Your task to perform on an android device: show emergency info Image 0: 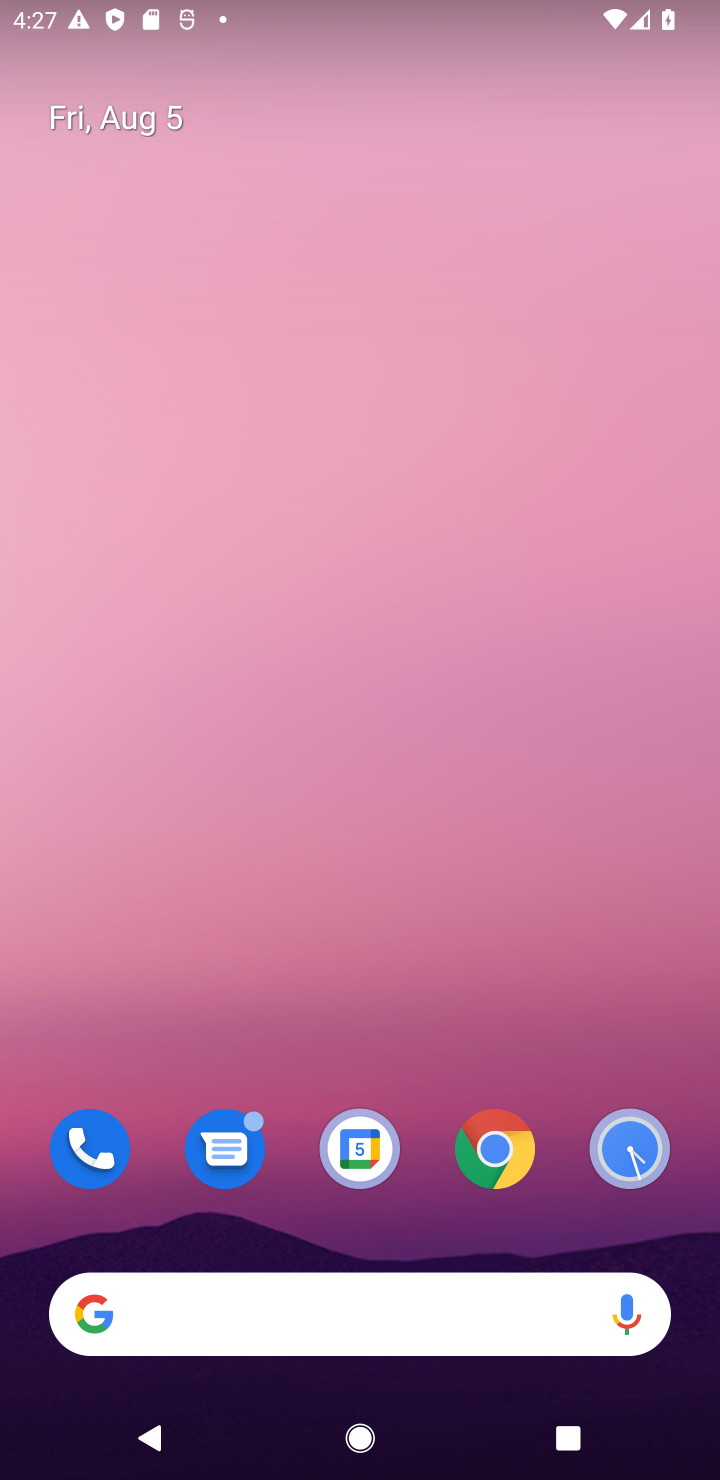
Step 0: drag from (275, 1200) to (480, 334)
Your task to perform on an android device: show emergency info Image 1: 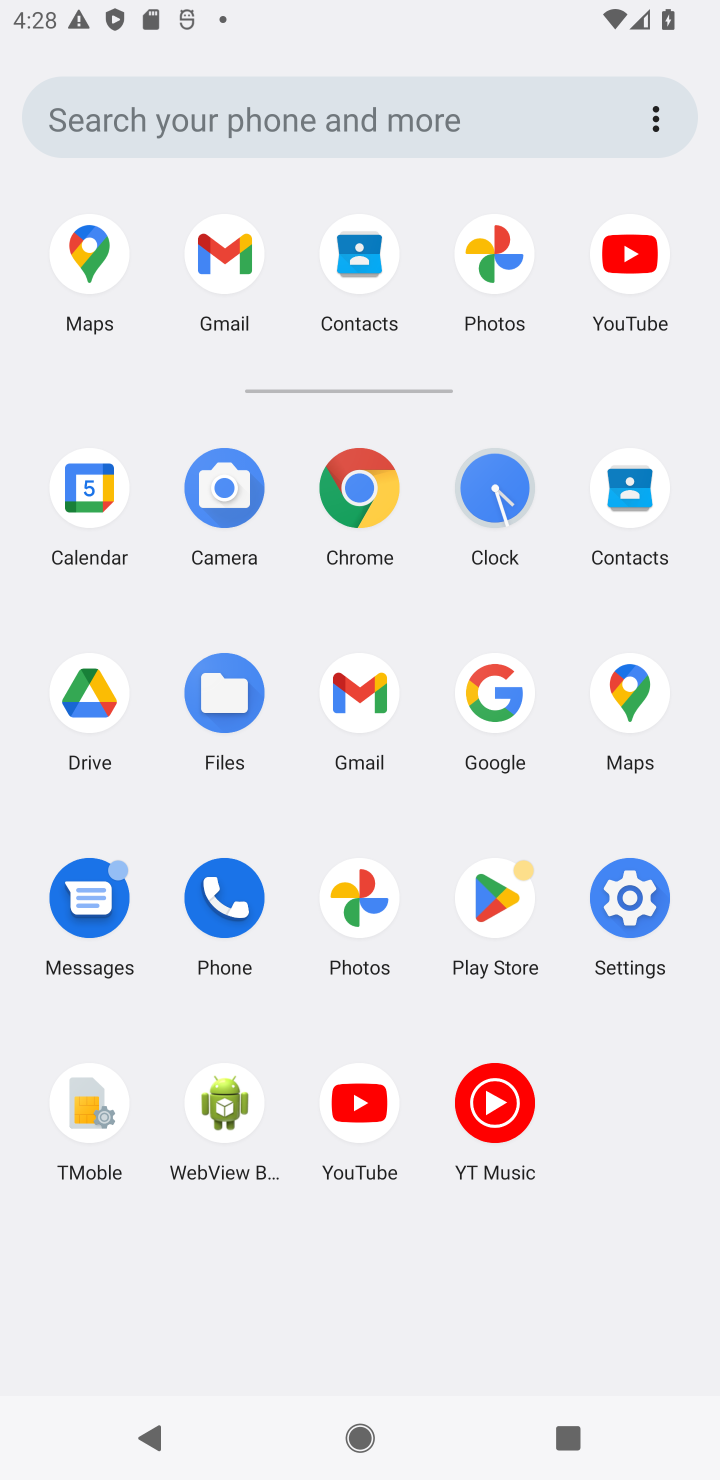
Step 1: click (648, 920)
Your task to perform on an android device: show emergency info Image 2: 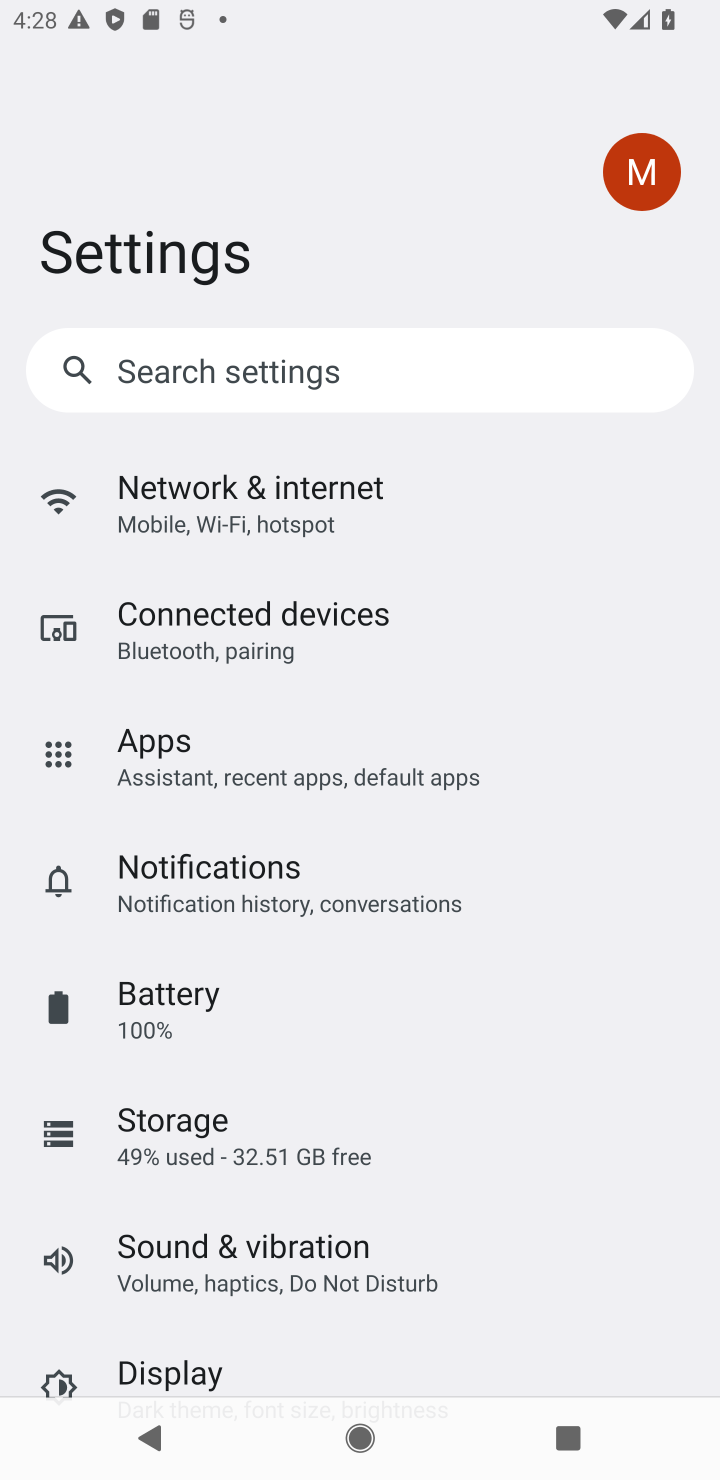
Step 2: drag from (318, 1297) to (373, 15)
Your task to perform on an android device: show emergency info Image 3: 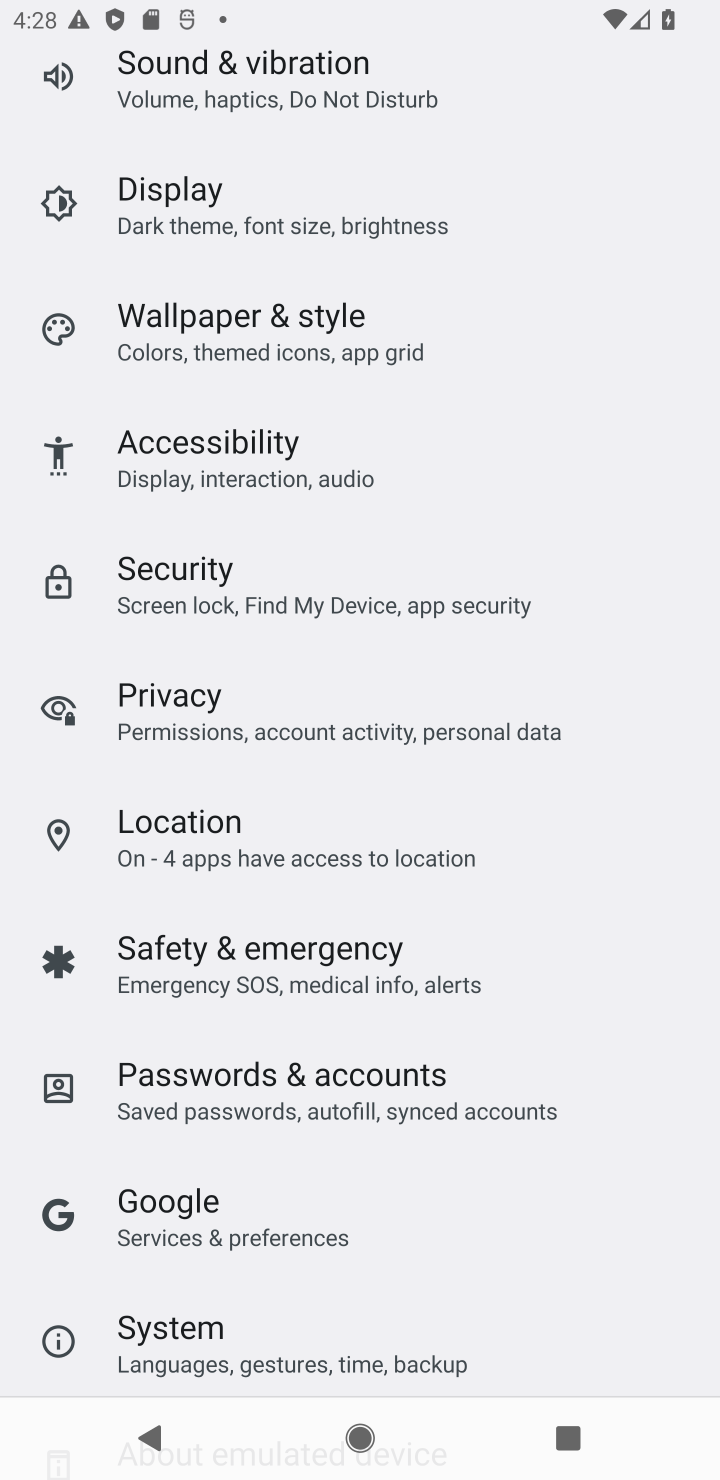
Step 3: drag from (302, 1314) to (496, 4)
Your task to perform on an android device: show emergency info Image 4: 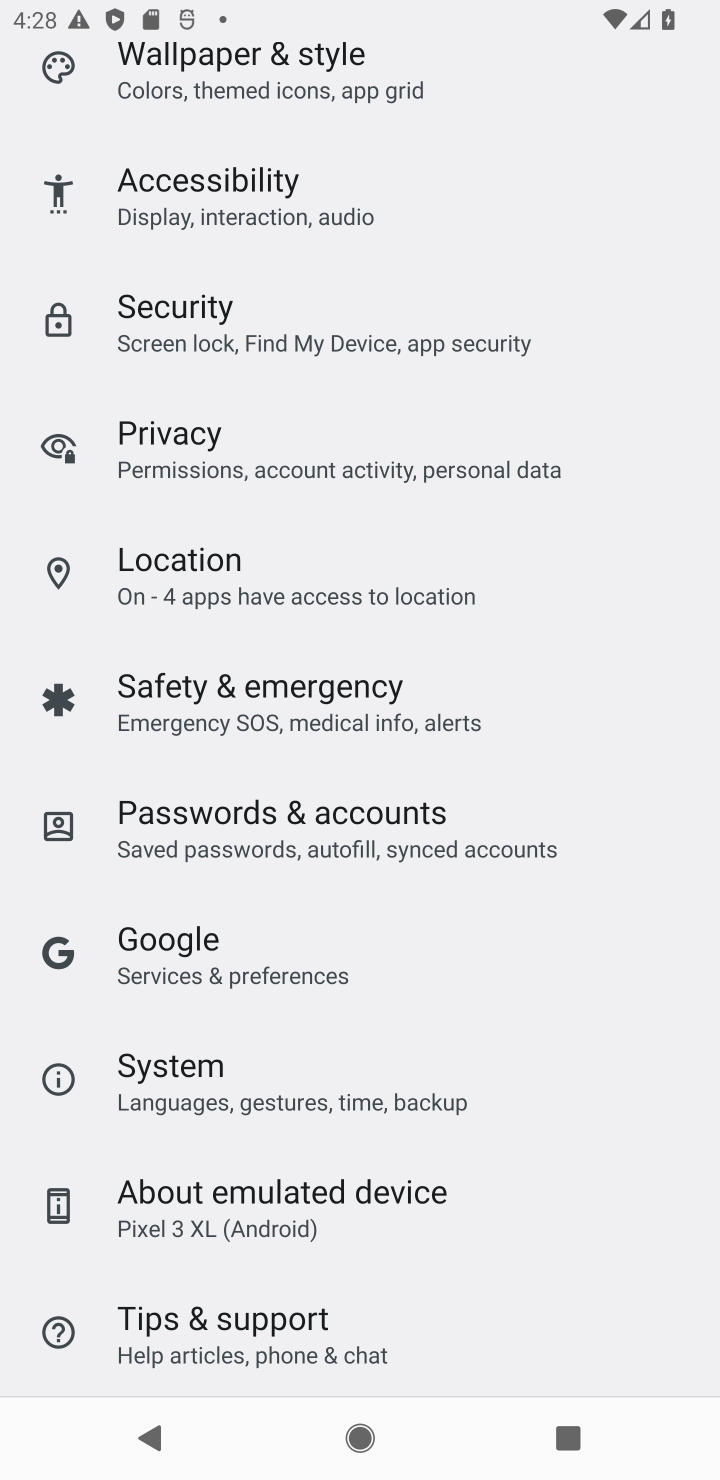
Step 4: drag from (344, 1326) to (486, 33)
Your task to perform on an android device: show emergency info Image 5: 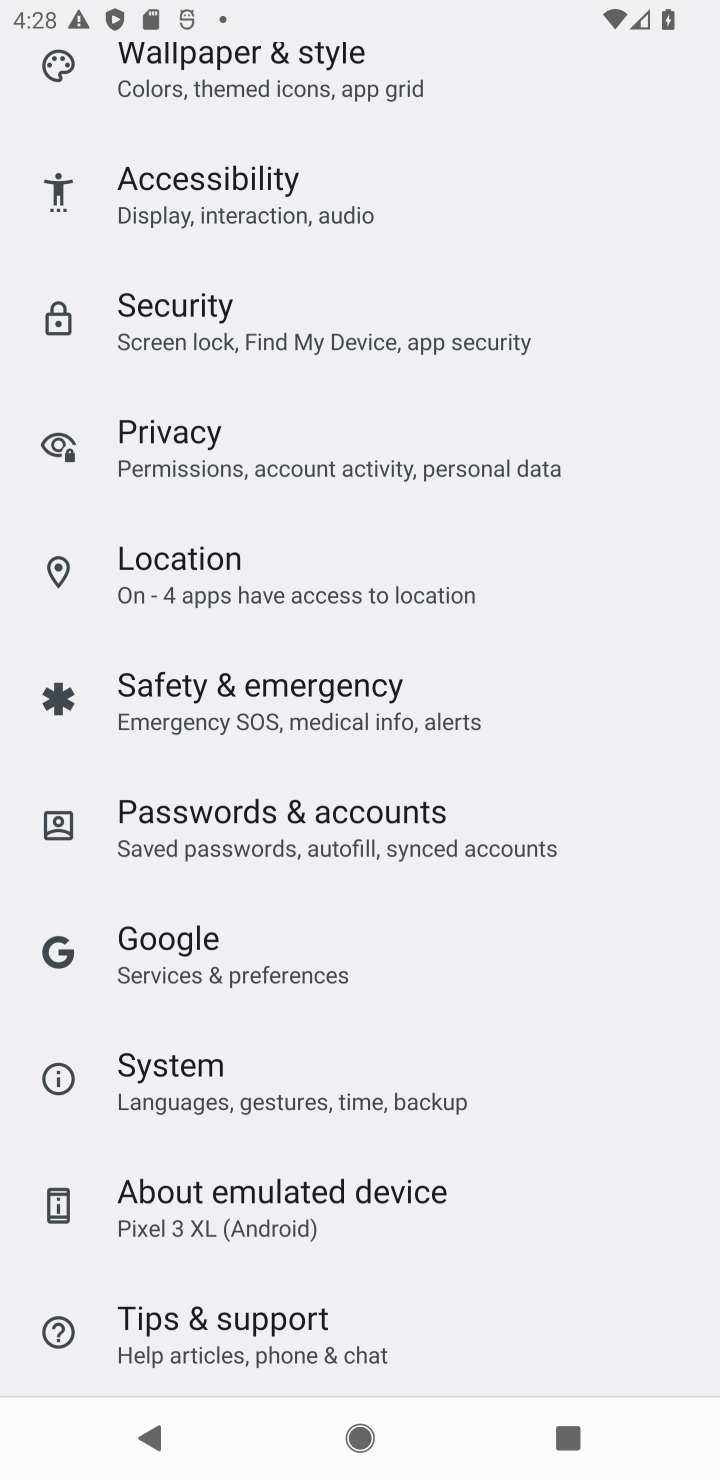
Step 5: drag from (257, 1276) to (427, 24)
Your task to perform on an android device: show emergency info Image 6: 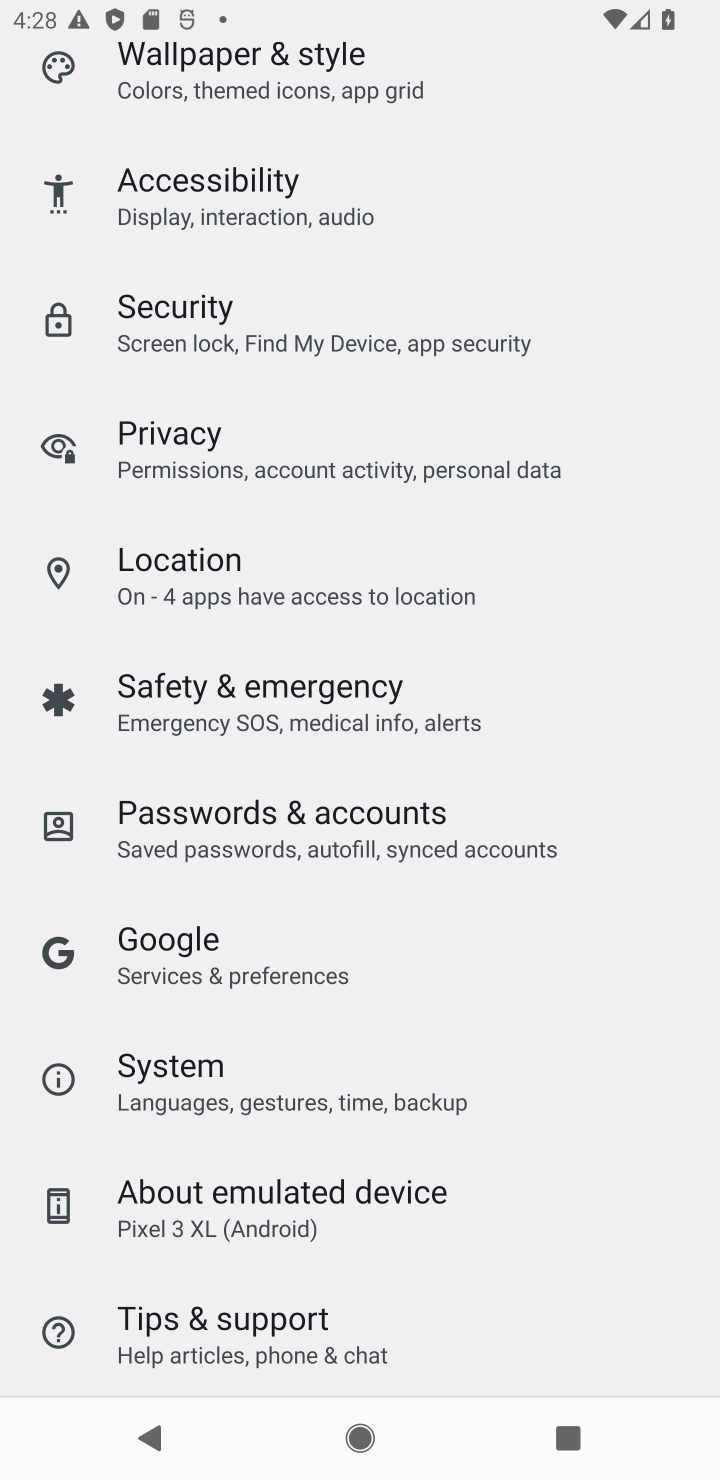
Step 6: click (234, 1202)
Your task to perform on an android device: show emergency info Image 7: 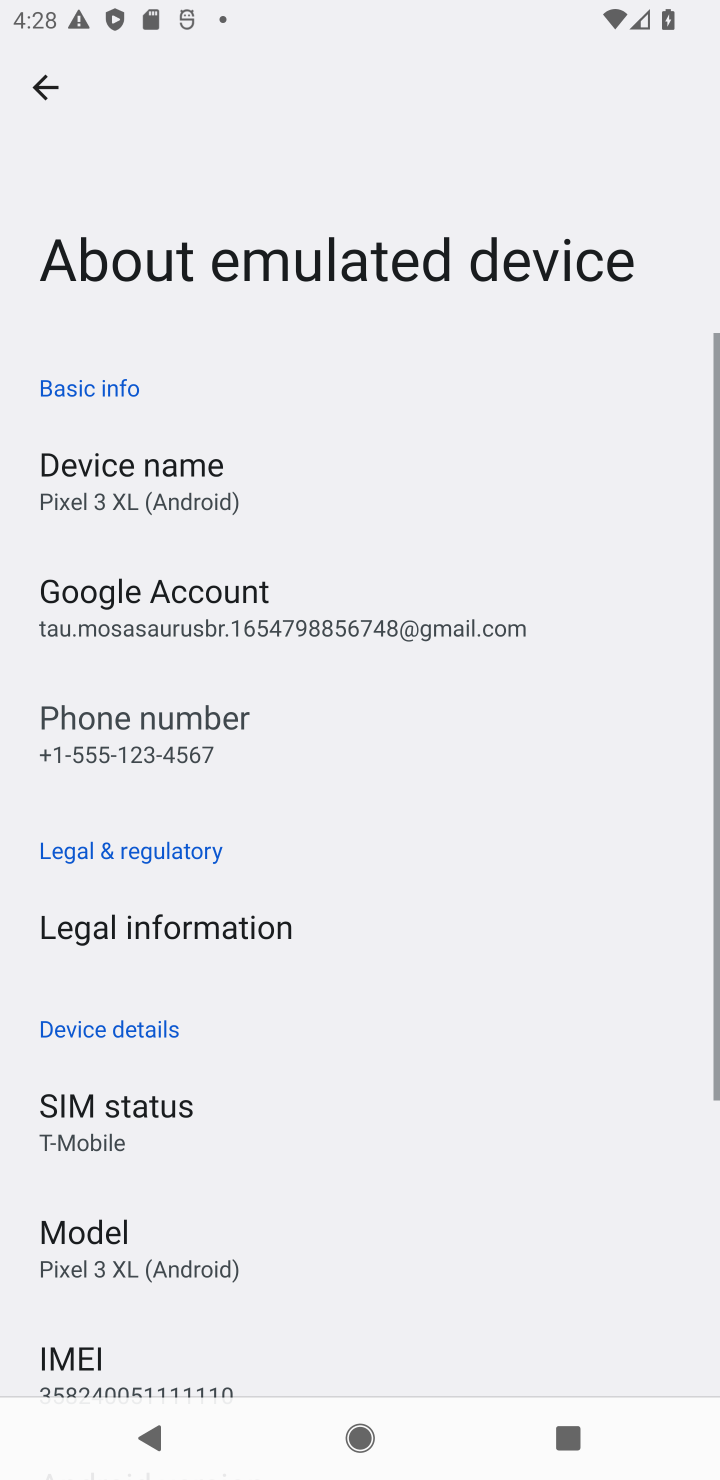
Step 7: click (42, 81)
Your task to perform on an android device: show emergency info Image 8: 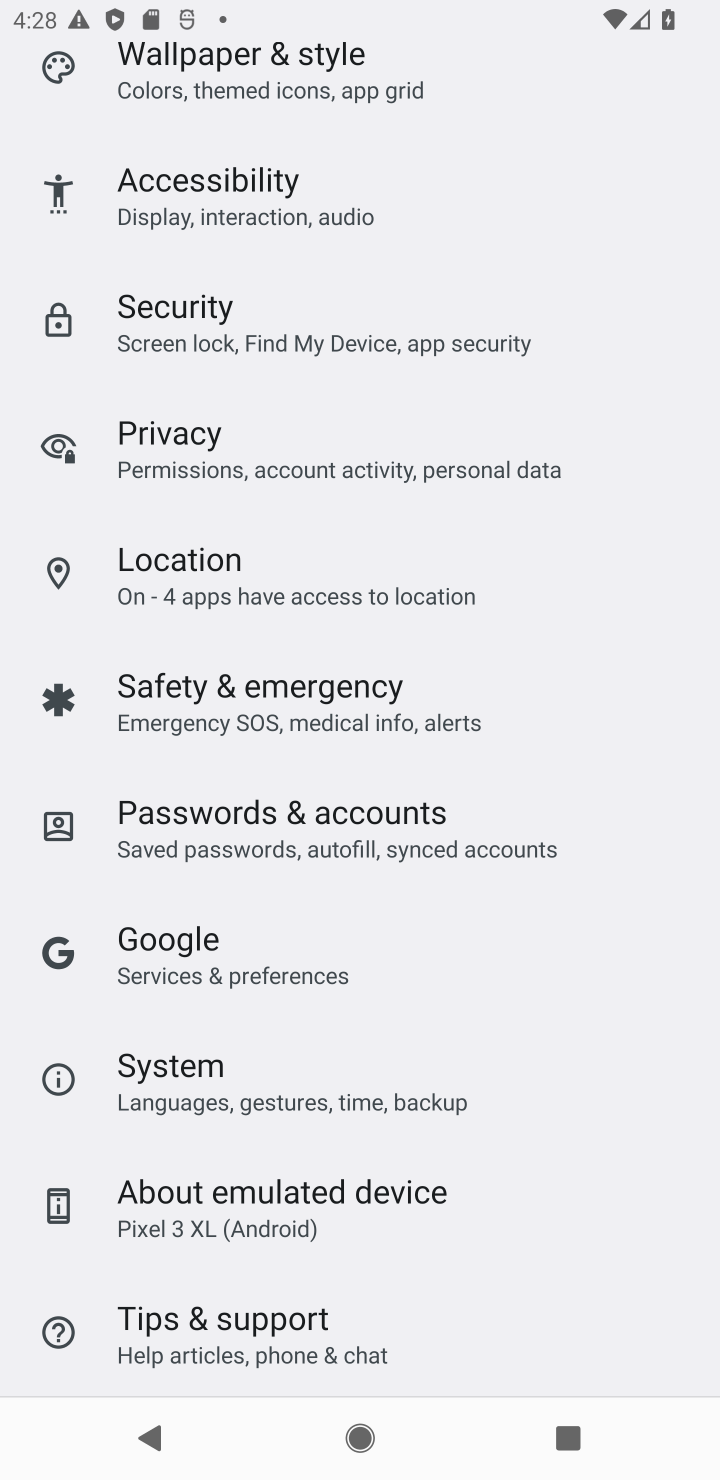
Step 8: click (276, 1202)
Your task to perform on an android device: show emergency info Image 9: 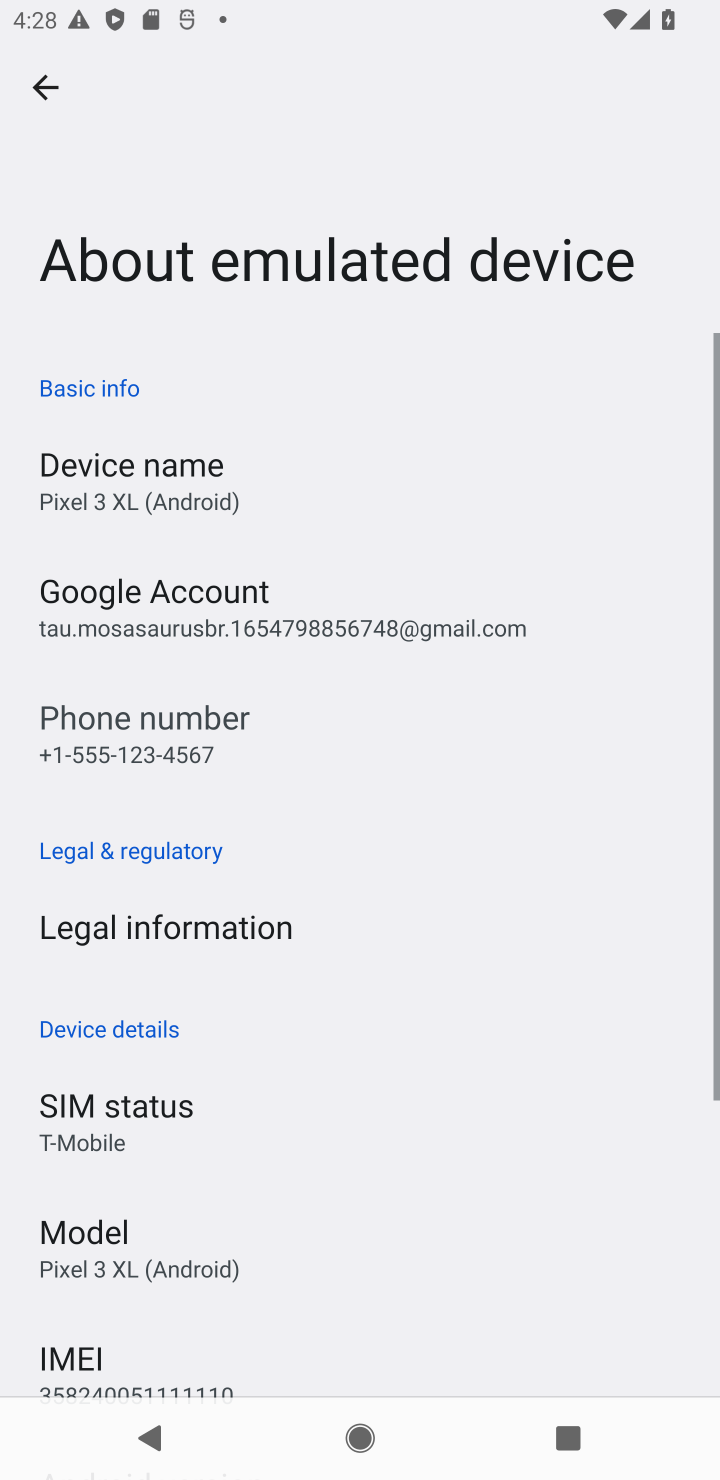
Step 9: task complete